Your task to perform on an android device: Show the shopping cart on ebay. Add "razer thresher" to the cart on ebay, then select checkout. Image 0: 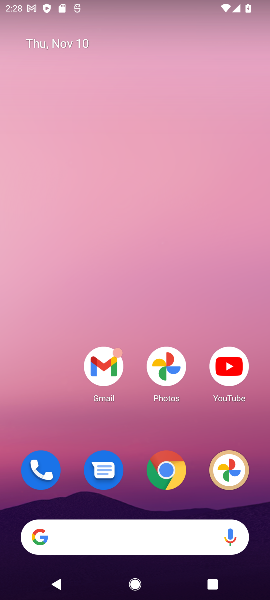
Step 0: click (167, 474)
Your task to perform on an android device: Show the shopping cart on ebay. Add "razer thresher" to the cart on ebay, then select checkout. Image 1: 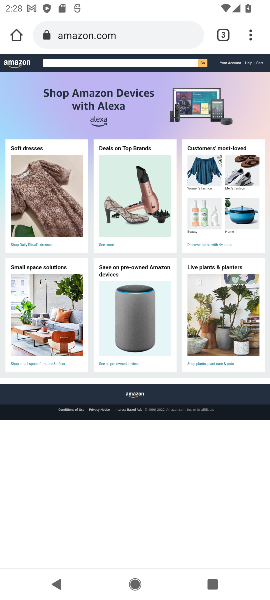
Step 1: click (219, 32)
Your task to perform on an android device: Show the shopping cart on ebay. Add "razer thresher" to the cart on ebay, then select checkout. Image 2: 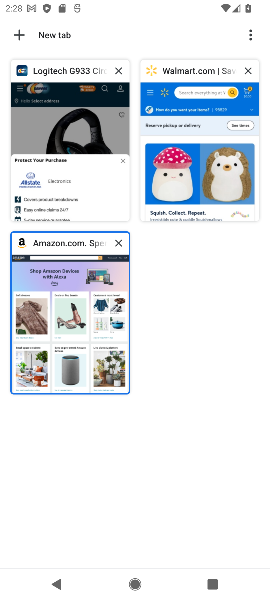
Step 2: click (117, 239)
Your task to perform on an android device: Show the shopping cart on ebay. Add "razer thresher" to the cart on ebay, then select checkout. Image 3: 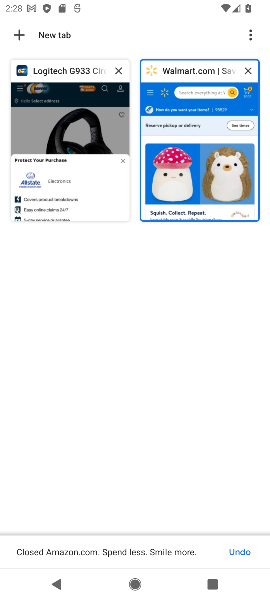
Step 3: click (16, 33)
Your task to perform on an android device: Show the shopping cart on ebay. Add "razer thresher" to the cart on ebay, then select checkout. Image 4: 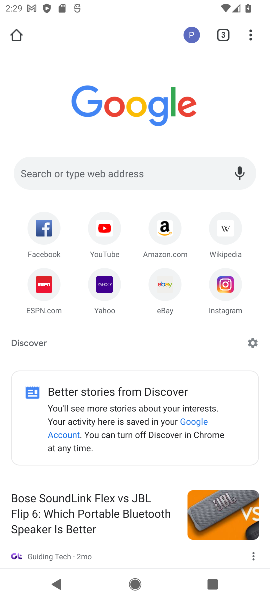
Step 4: click (165, 278)
Your task to perform on an android device: Show the shopping cart on ebay. Add "razer thresher" to the cart on ebay, then select checkout. Image 5: 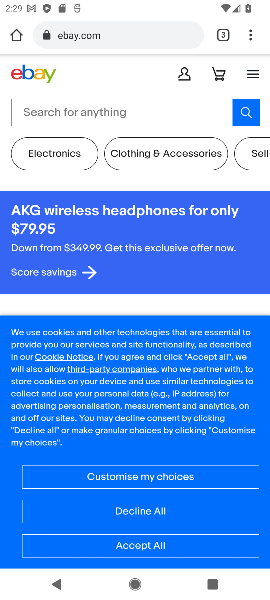
Step 5: click (133, 509)
Your task to perform on an android device: Show the shopping cart on ebay. Add "razer thresher" to the cart on ebay, then select checkout. Image 6: 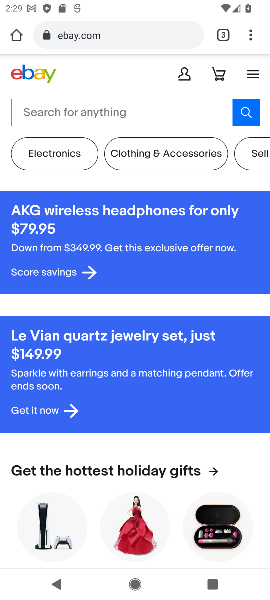
Step 6: click (113, 112)
Your task to perform on an android device: Show the shopping cart on ebay. Add "razer thresher" to the cart on ebay, then select checkout. Image 7: 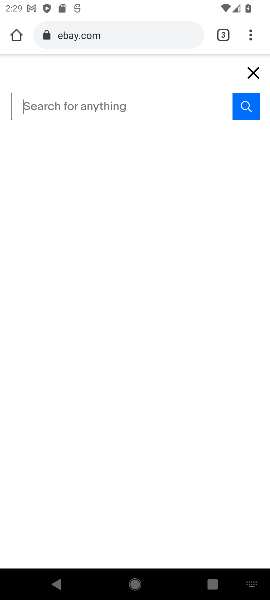
Step 7: type "razer thresher"
Your task to perform on an android device: Show the shopping cart on ebay. Add "razer thresher" to the cart on ebay, then select checkout. Image 8: 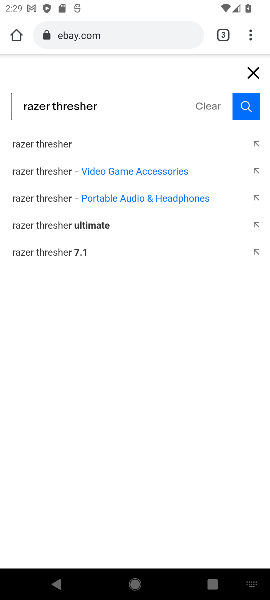
Step 8: click (42, 172)
Your task to perform on an android device: Show the shopping cart on ebay. Add "razer thresher" to the cart on ebay, then select checkout. Image 9: 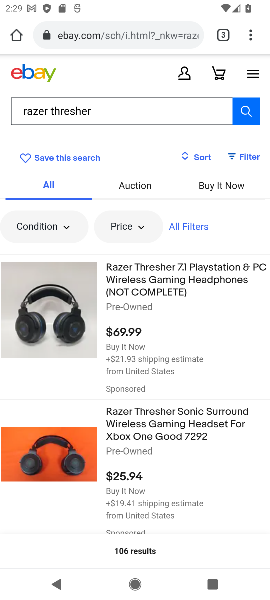
Step 9: click (153, 277)
Your task to perform on an android device: Show the shopping cart on ebay. Add "razer thresher" to the cart on ebay, then select checkout. Image 10: 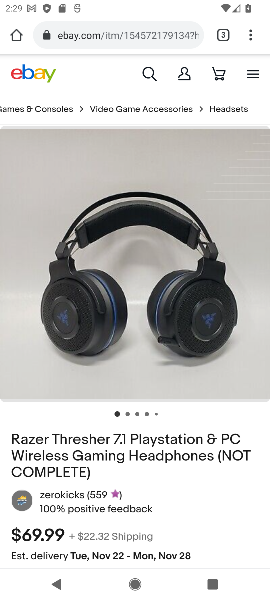
Step 10: drag from (137, 489) to (138, 173)
Your task to perform on an android device: Show the shopping cart on ebay. Add "razer thresher" to the cart on ebay, then select checkout. Image 11: 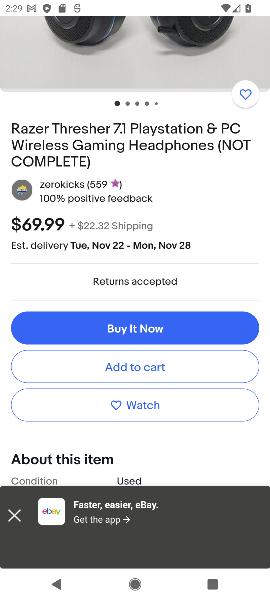
Step 11: click (139, 371)
Your task to perform on an android device: Show the shopping cart on ebay. Add "razer thresher" to the cart on ebay, then select checkout. Image 12: 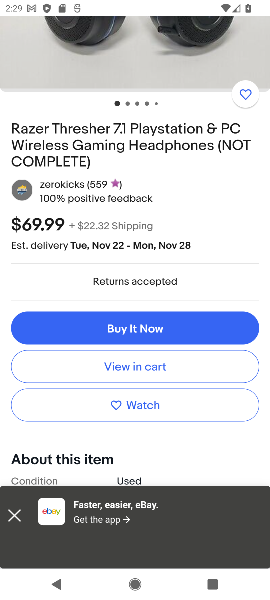
Step 12: task complete